Your task to perform on an android device: turn on wifi Image 0: 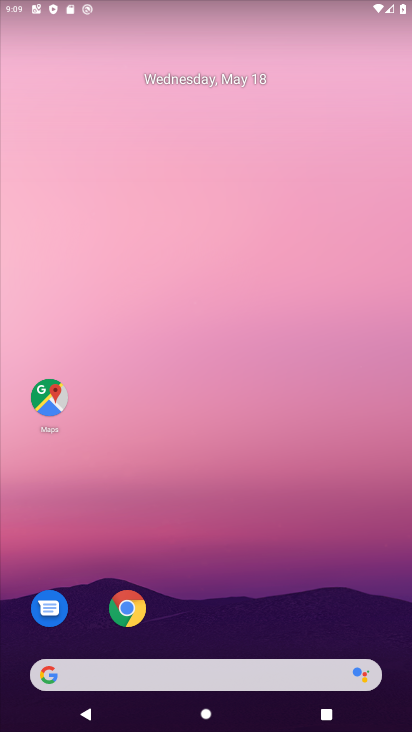
Step 0: drag from (175, 1) to (181, 610)
Your task to perform on an android device: turn on wifi Image 1: 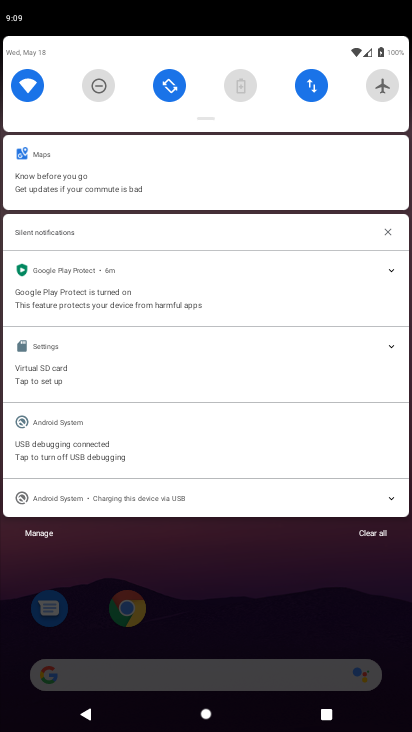
Step 1: task complete